Your task to perform on an android device: Go to network settings Image 0: 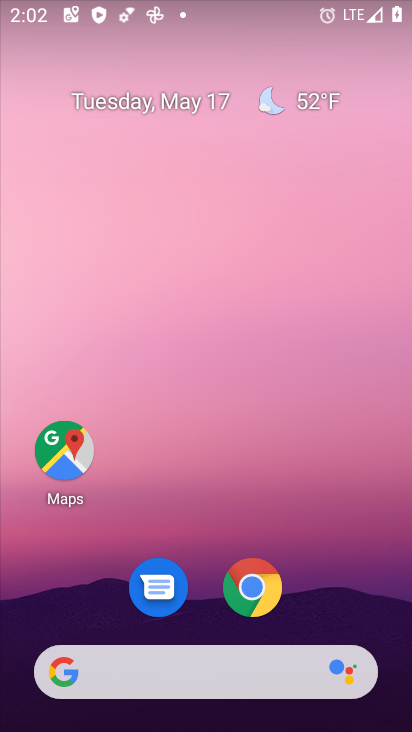
Step 0: drag from (410, 584) to (246, 61)
Your task to perform on an android device: Go to network settings Image 1: 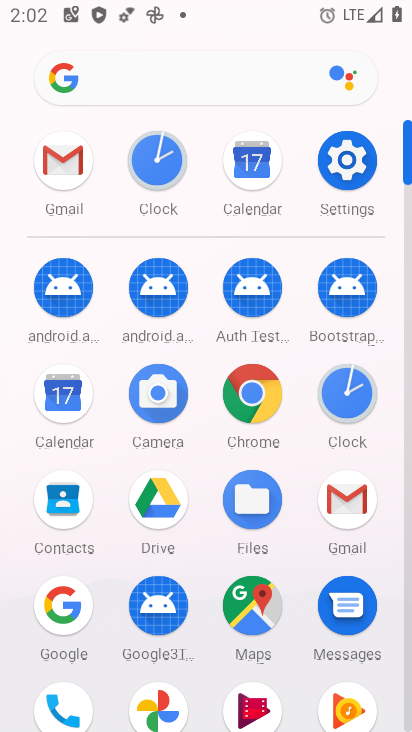
Step 1: click (334, 144)
Your task to perform on an android device: Go to network settings Image 2: 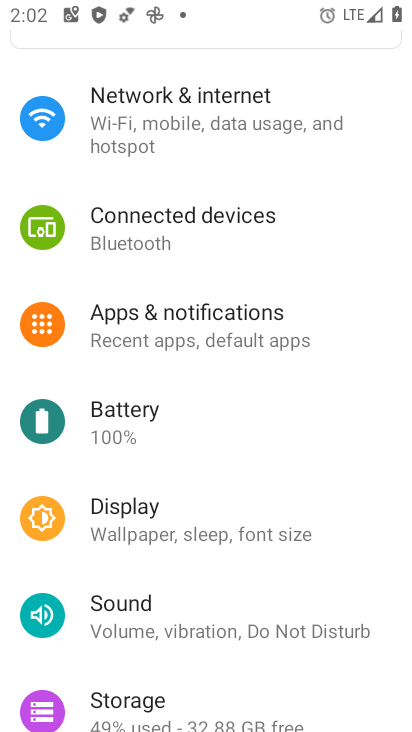
Step 2: click (329, 138)
Your task to perform on an android device: Go to network settings Image 3: 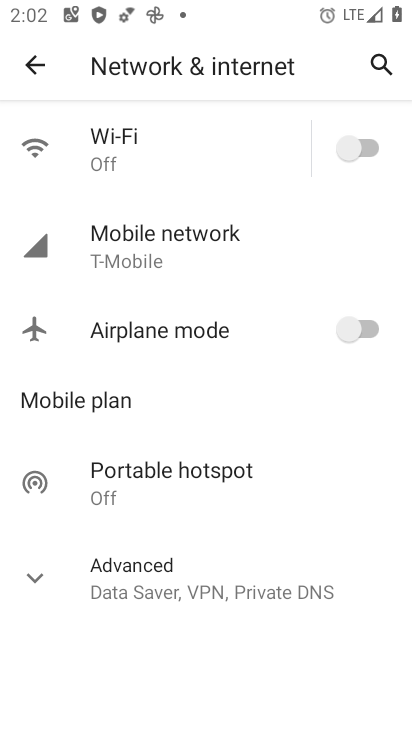
Step 3: task complete